Your task to perform on an android device: Go to wifi settings Image 0: 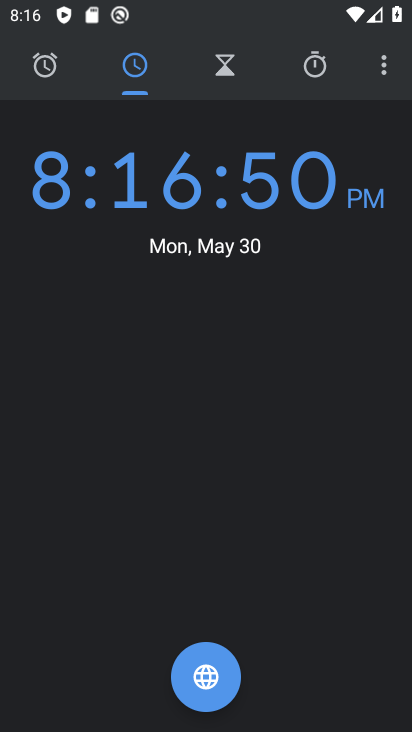
Step 0: press home button
Your task to perform on an android device: Go to wifi settings Image 1: 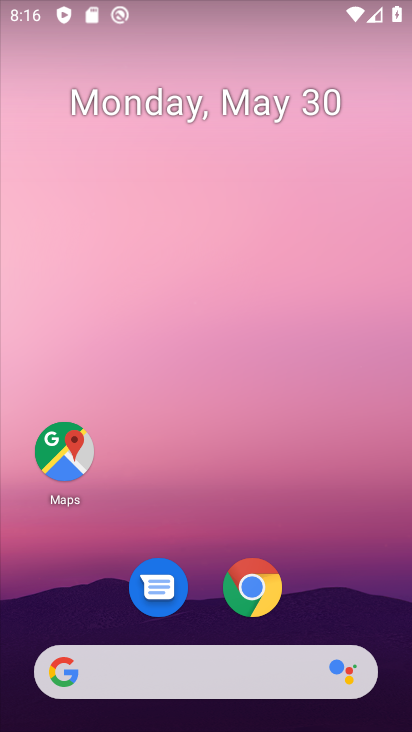
Step 1: drag from (195, 591) to (247, 36)
Your task to perform on an android device: Go to wifi settings Image 2: 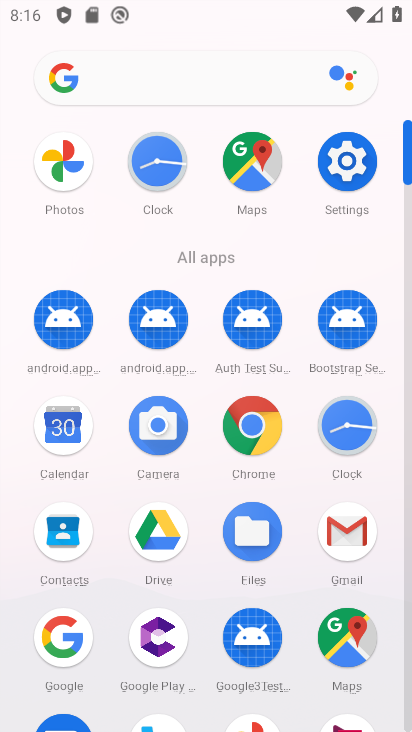
Step 2: click (341, 160)
Your task to perform on an android device: Go to wifi settings Image 3: 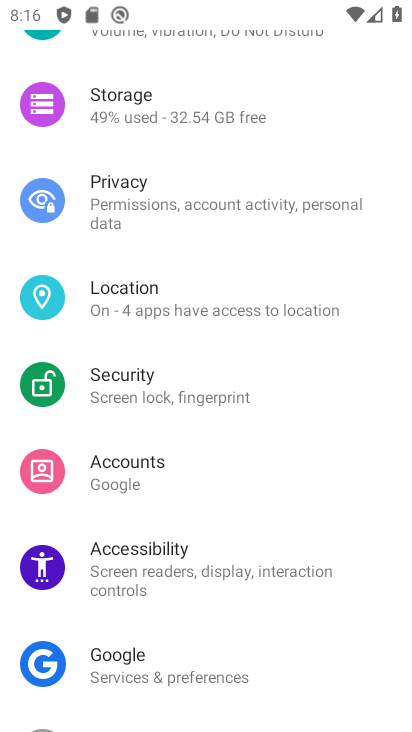
Step 3: drag from (232, 117) to (219, 630)
Your task to perform on an android device: Go to wifi settings Image 4: 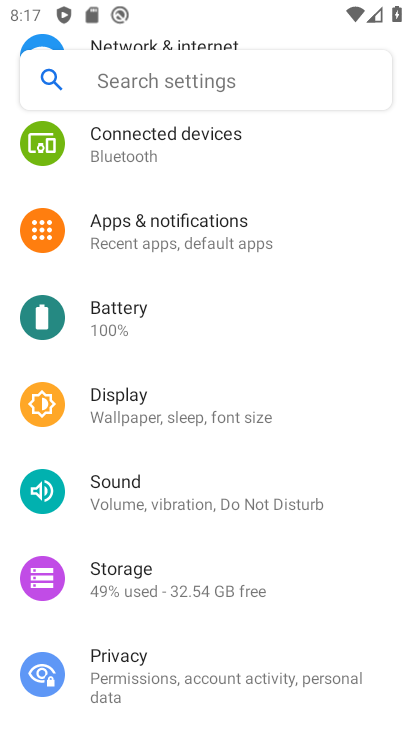
Step 4: drag from (201, 160) to (213, 702)
Your task to perform on an android device: Go to wifi settings Image 5: 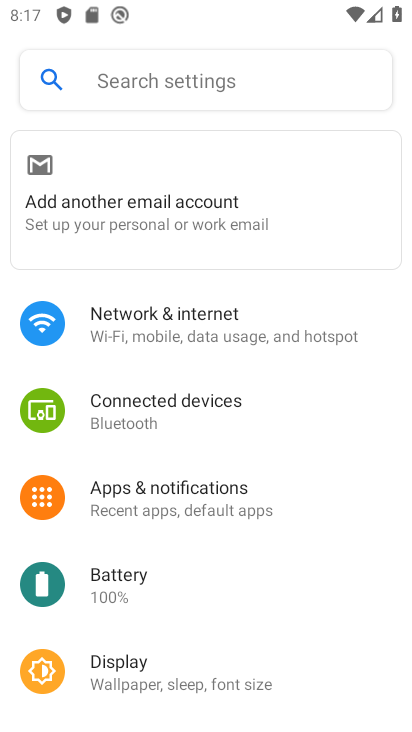
Step 5: click (180, 316)
Your task to perform on an android device: Go to wifi settings Image 6: 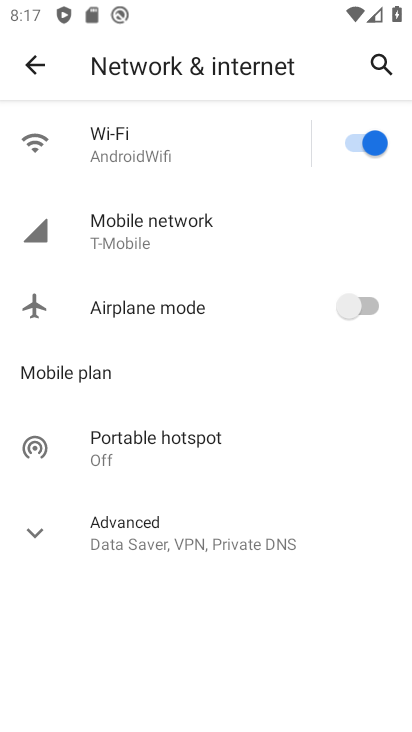
Step 6: click (204, 140)
Your task to perform on an android device: Go to wifi settings Image 7: 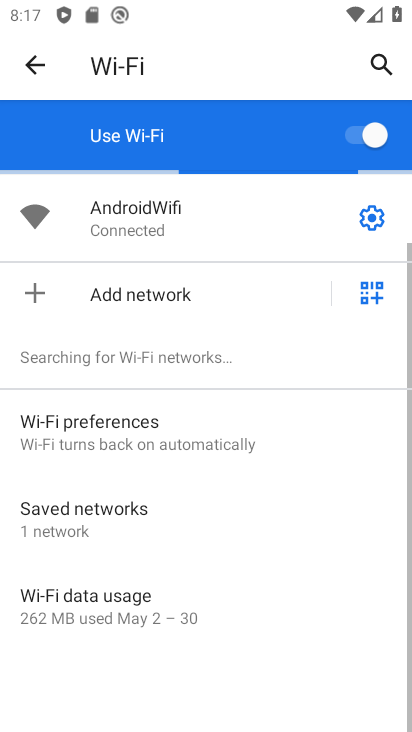
Step 7: task complete